Your task to perform on an android device: Is it going to rain today? Image 0: 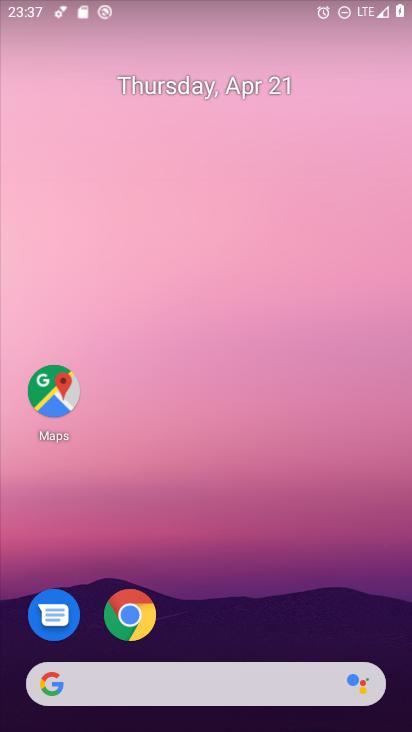
Step 0: press home button
Your task to perform on an android device: Is it going to rain today? Image 1: 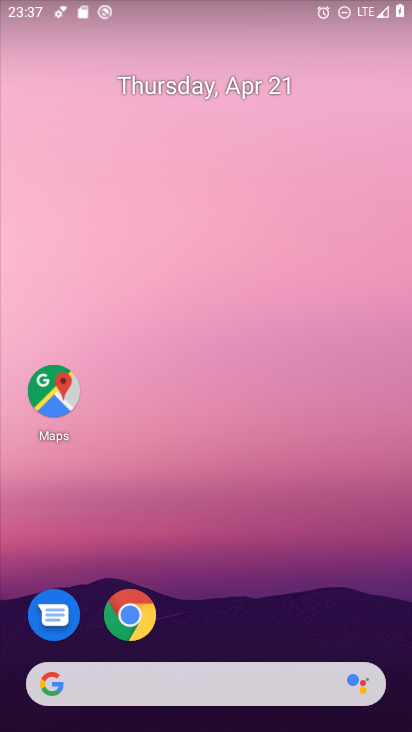
Step 1: click (182, 674)
Your task to perform on an android device: Is it going to rain today? Image 2: 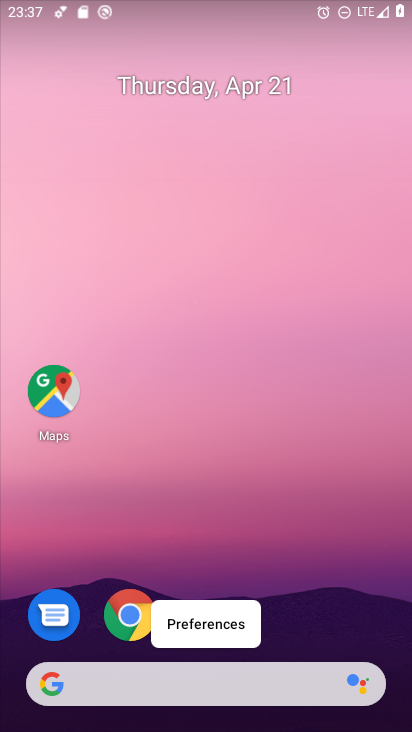
Step 2: click (196, 689)
Your task to perform on an android device: Is it going to rain today? Image 3: 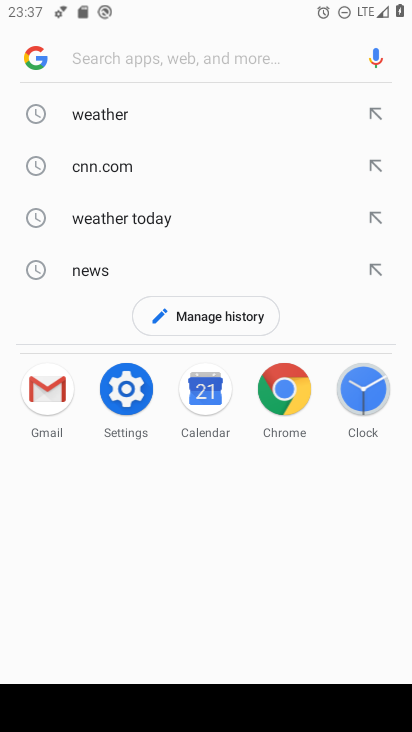
Step 3: click (134, 105)
Your task to perform on an android device: Is it going to rain today? Image 4: 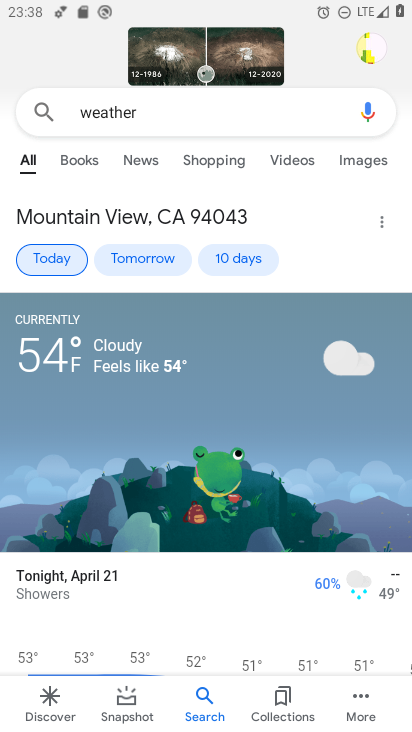
Step 4: task complete